Your task to perform on an android device: uninstall "LinkedIn" Image 0: 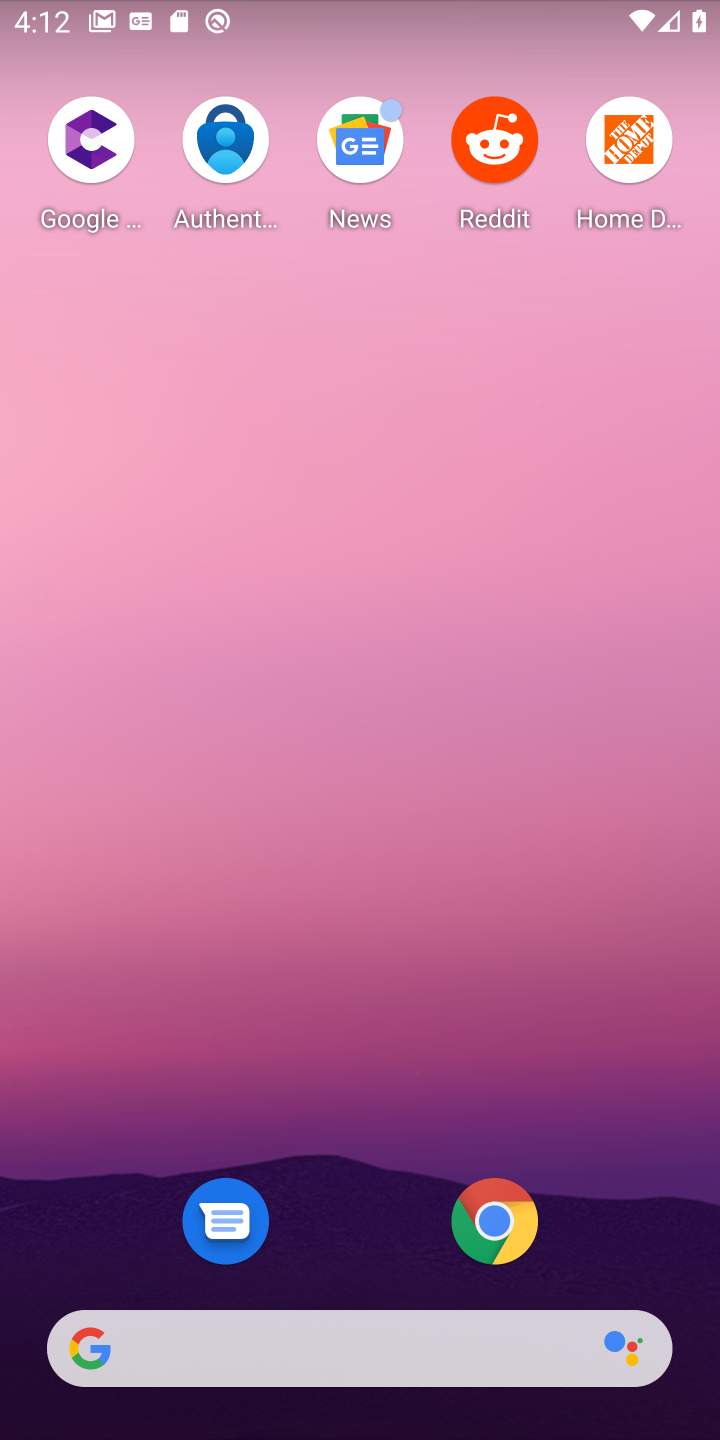
Step 0: press home button
Your task to perform on an android device: uninstall "LinkedIn" Image 1: 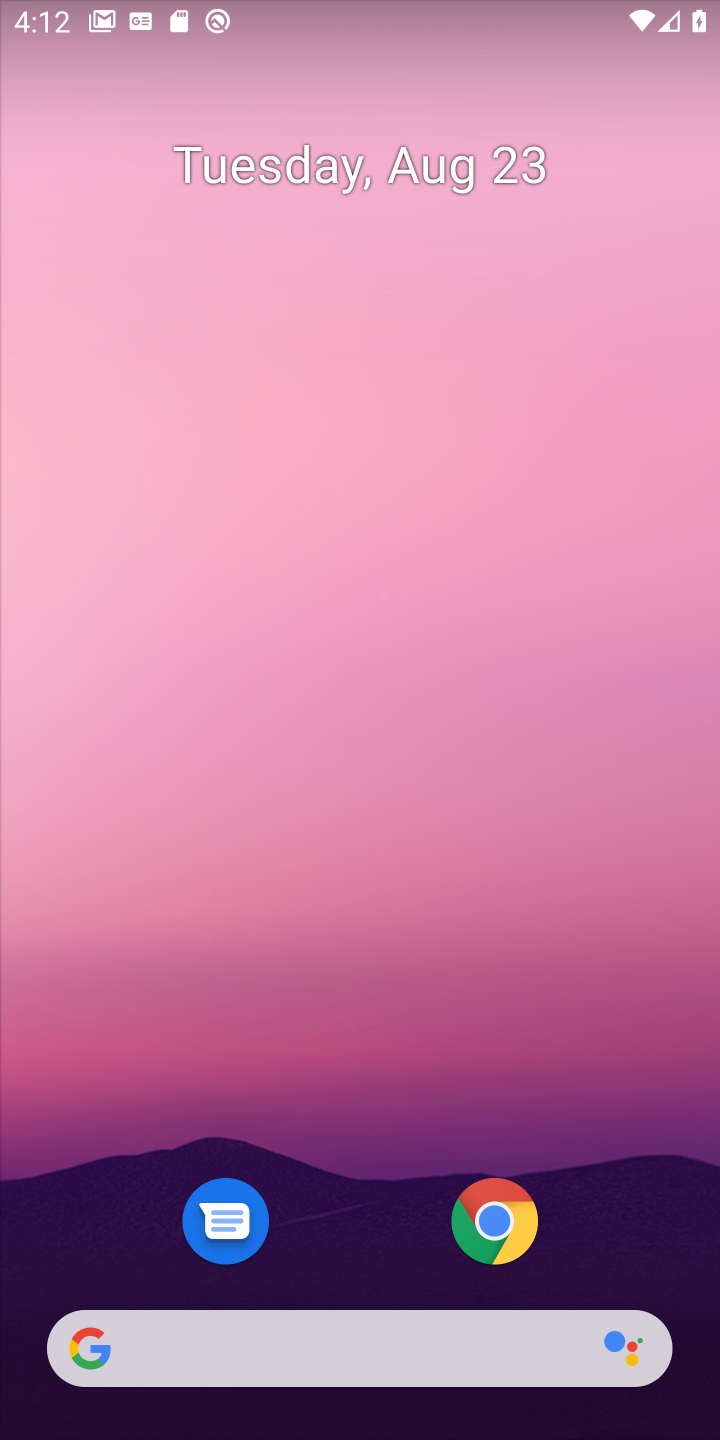
Step 1: click (509, 96)
Your task to perform on an android device: uninstall "LinkedIn" Image 2: 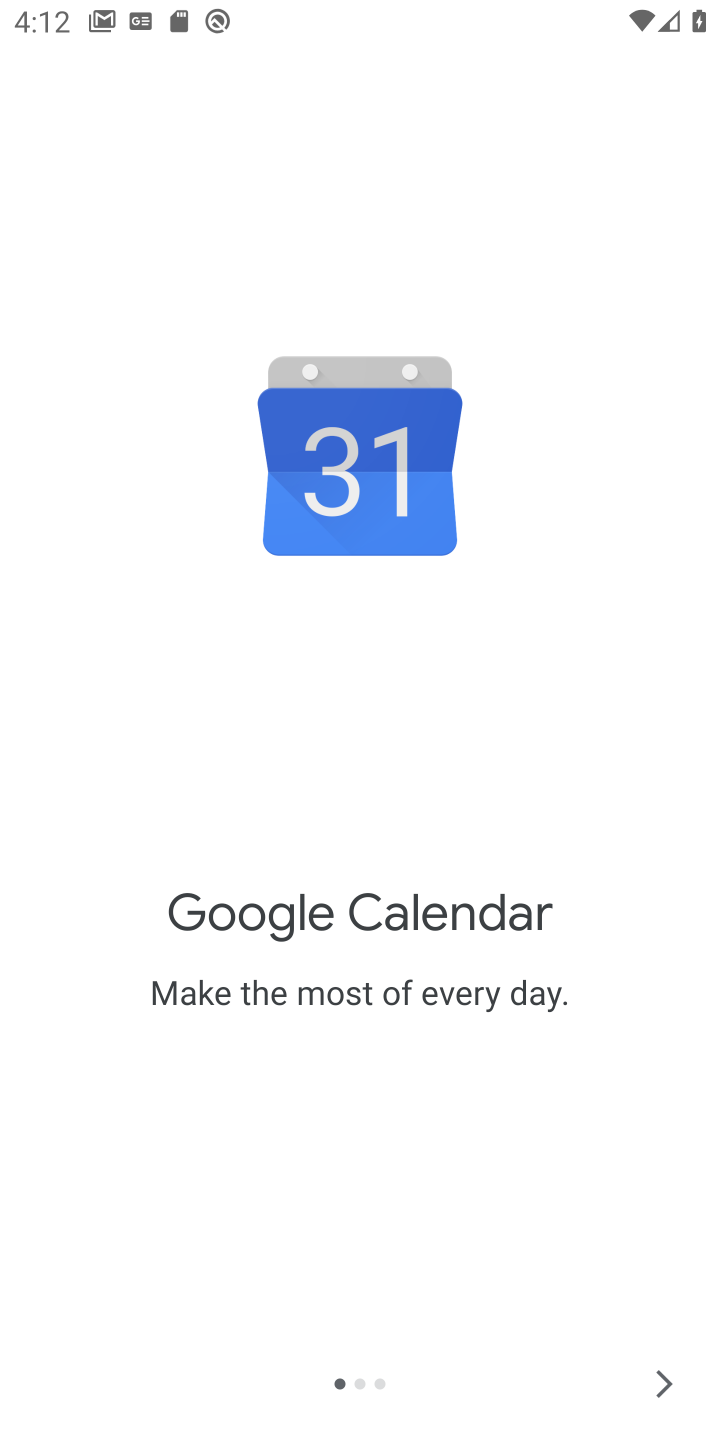
Step 2: press home button
Your task to perform on an android device: uninstall "LinkedIn" Image 3: 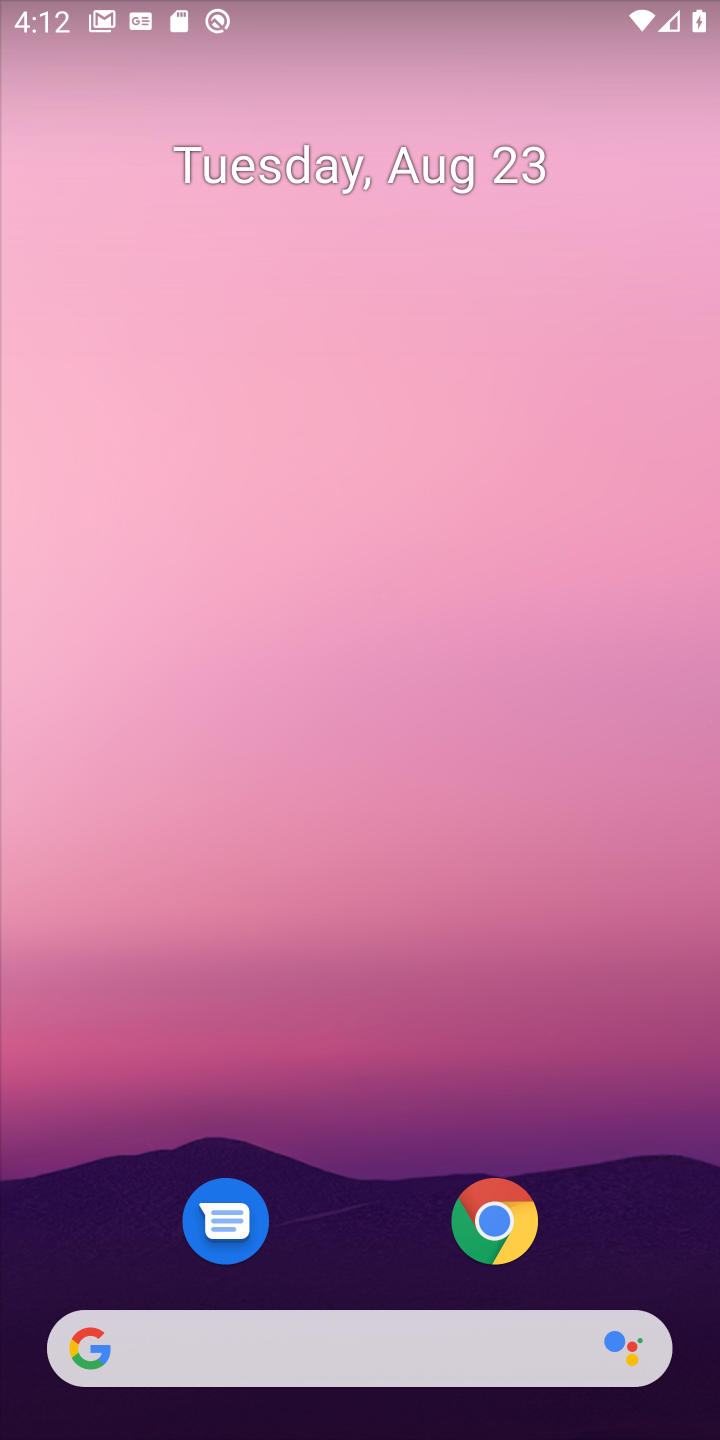
Step 3: drag from (318, 1151) to (348, 74)
Your task to perform on an android device: uninstall "LinkedIn" Image 4: 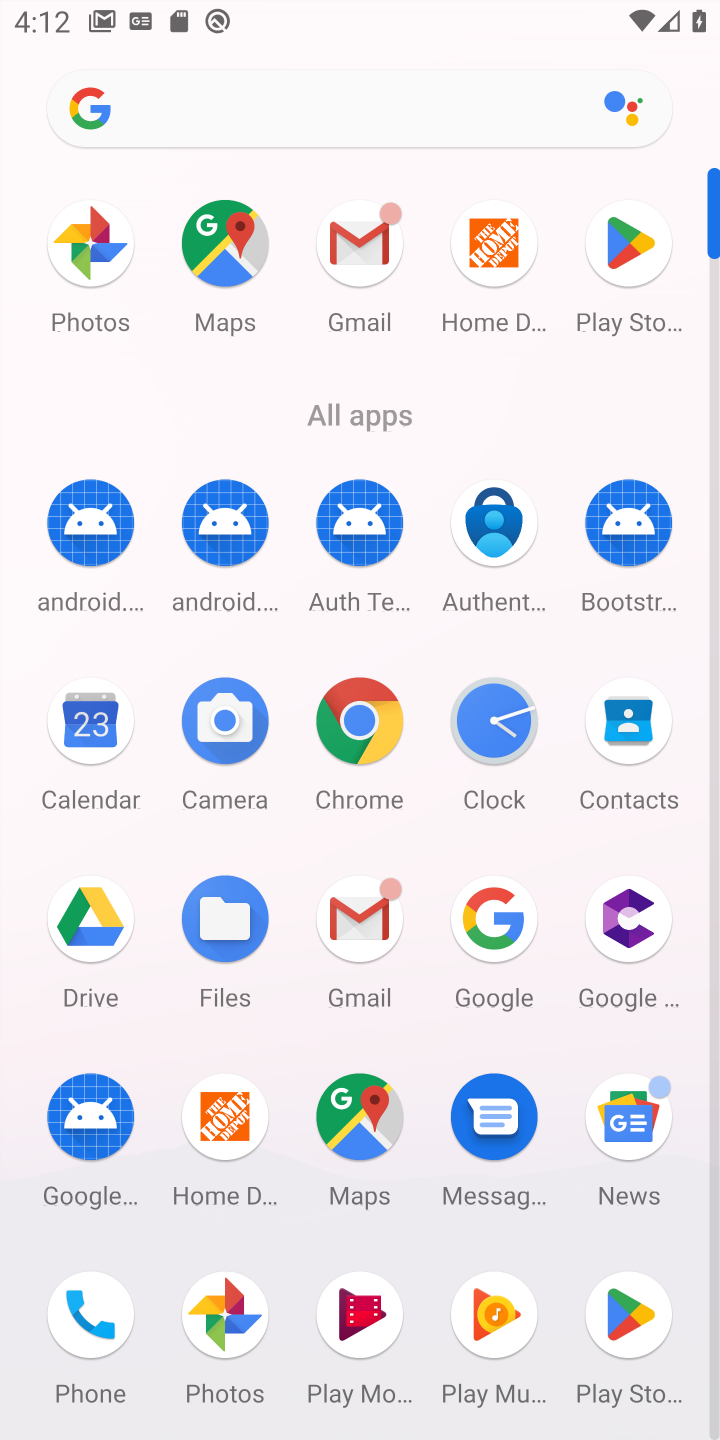
Step 4: click (629, 392)
Your task to perform on an android device: uninstall "LinkedIn" Image 5: 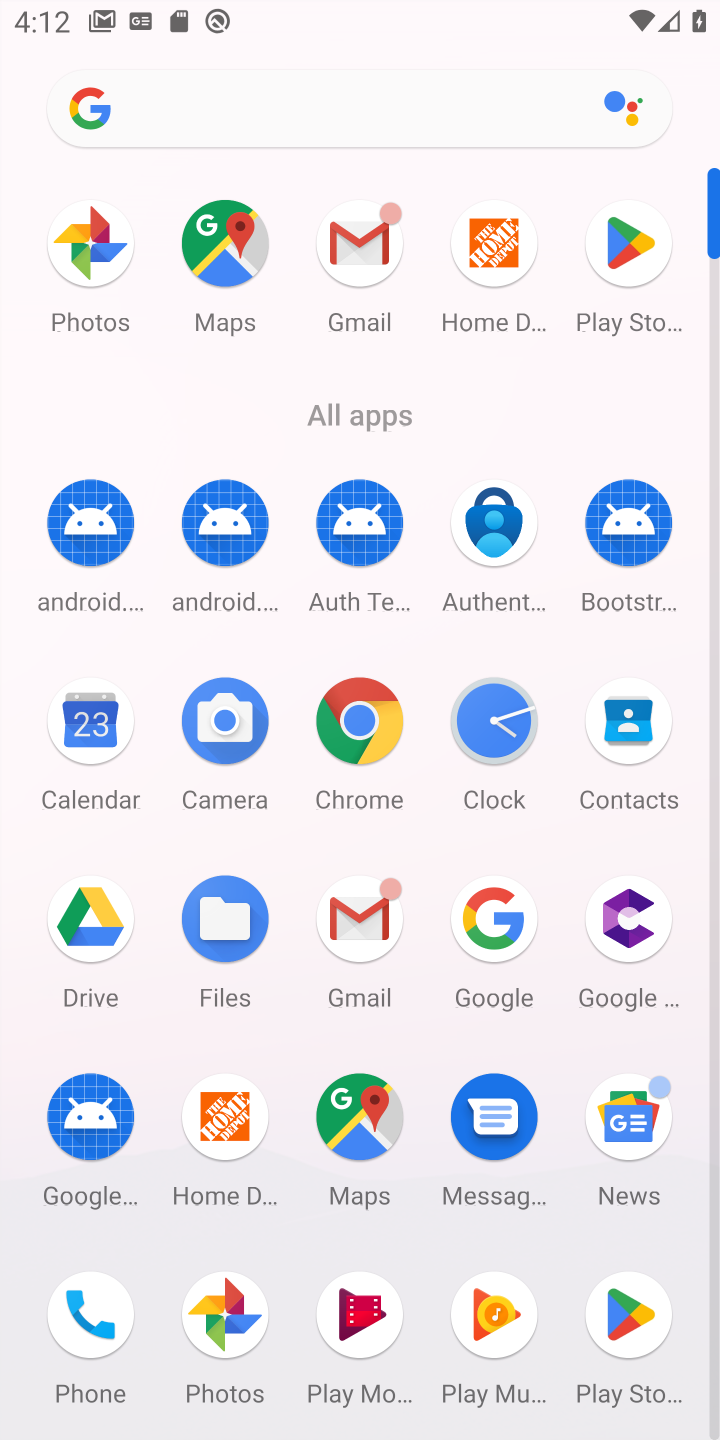
Step 5: click (629, 269)
Your task to perform on an android device: uninstall "LinkedIn" Image 6: 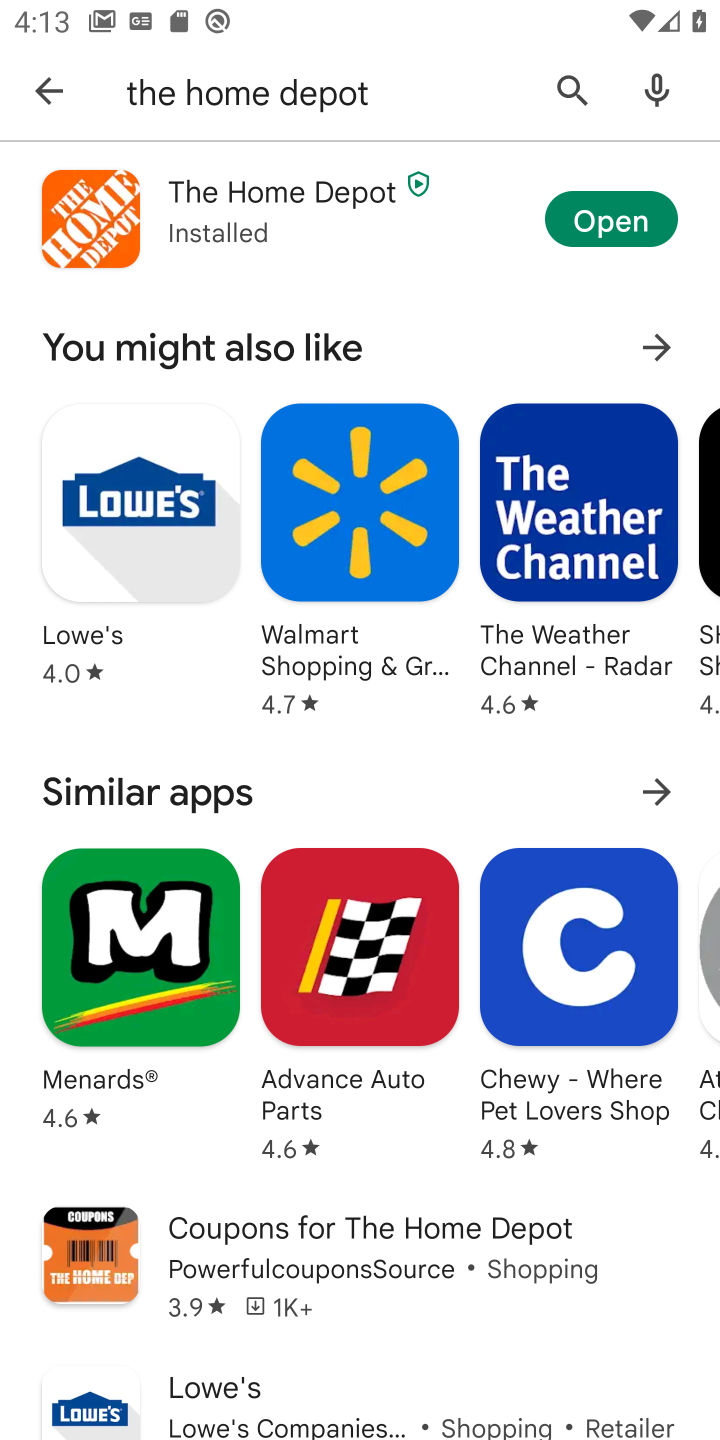
Step 6: click (621, 246)
Your task to perform on an android device: uninstall "LinkedIn" Image 7: 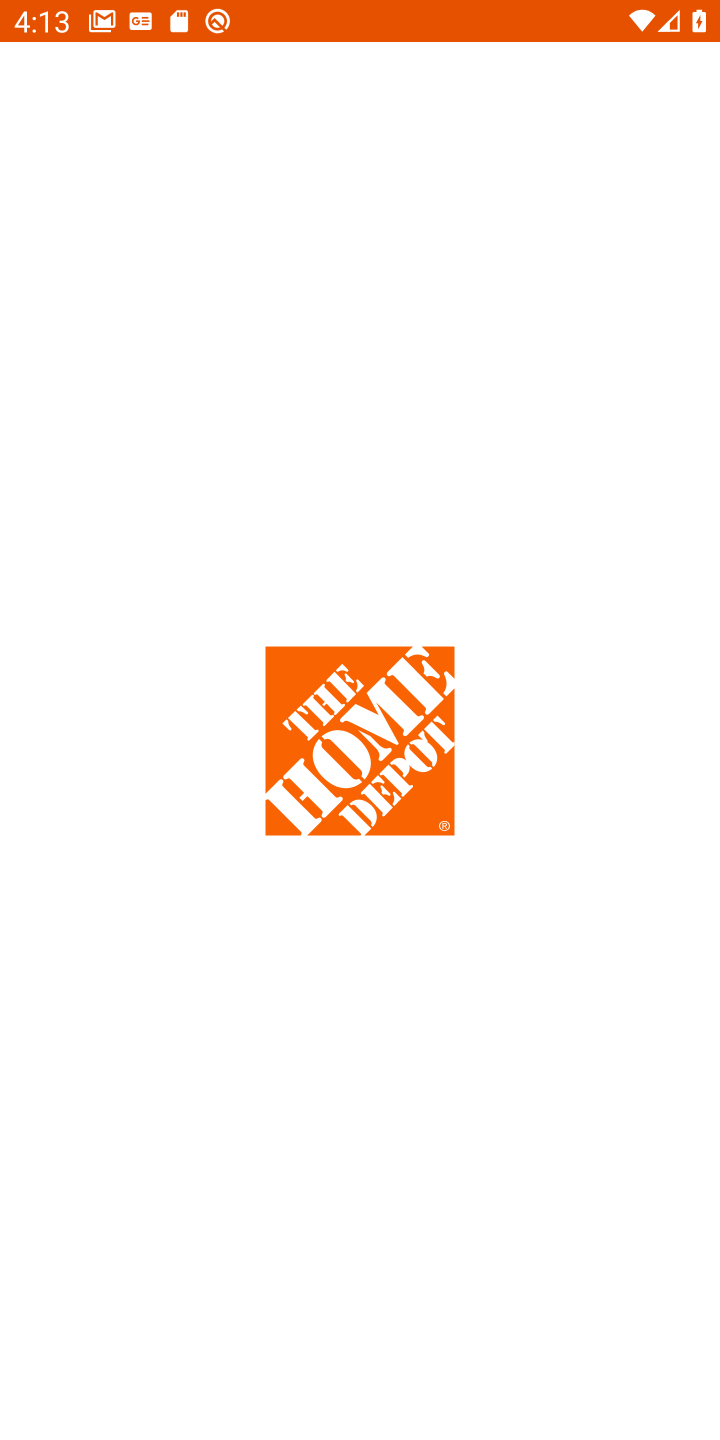
Step 7: click (43, 90)
Your task to perform on an android device: uninstall "LinkedIn" Image 8: 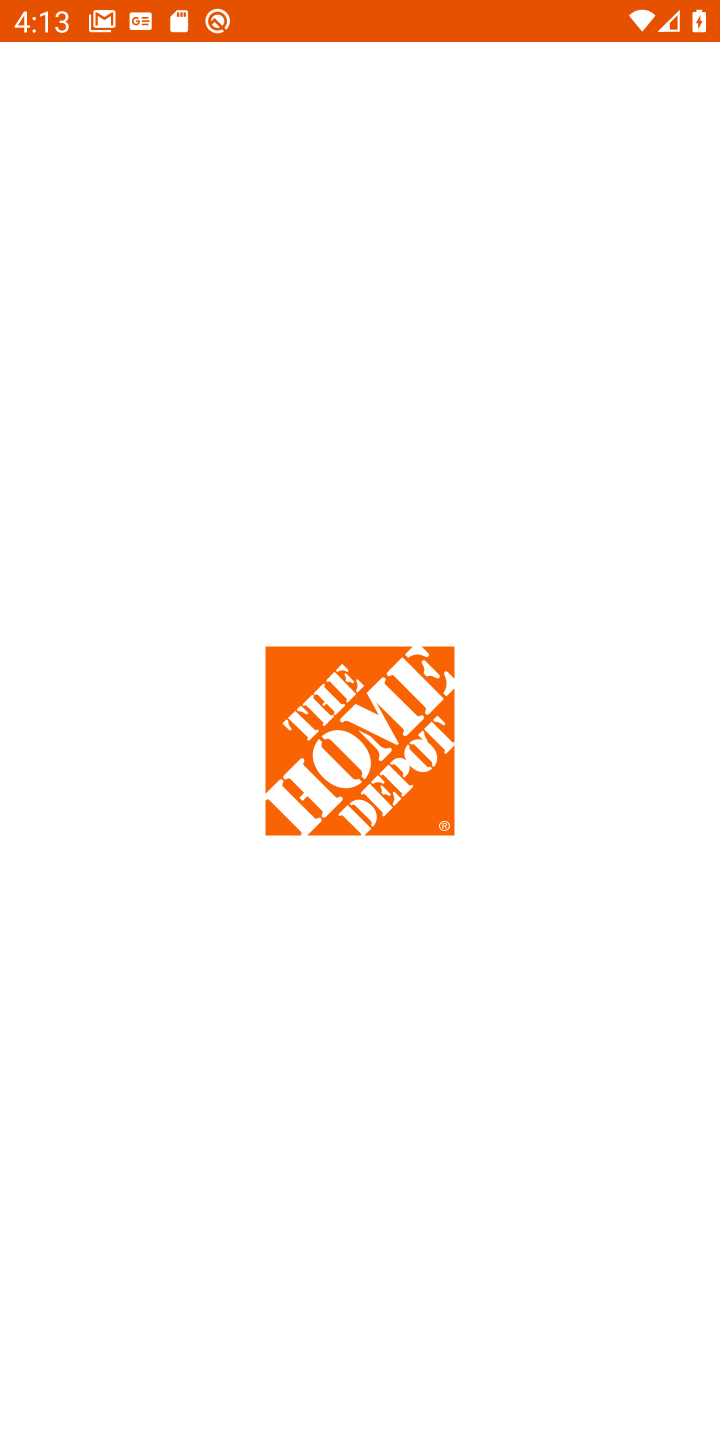
Step 8: press back button
Your task to perform on an android device: uninstall "LinkedIn" Image 9: 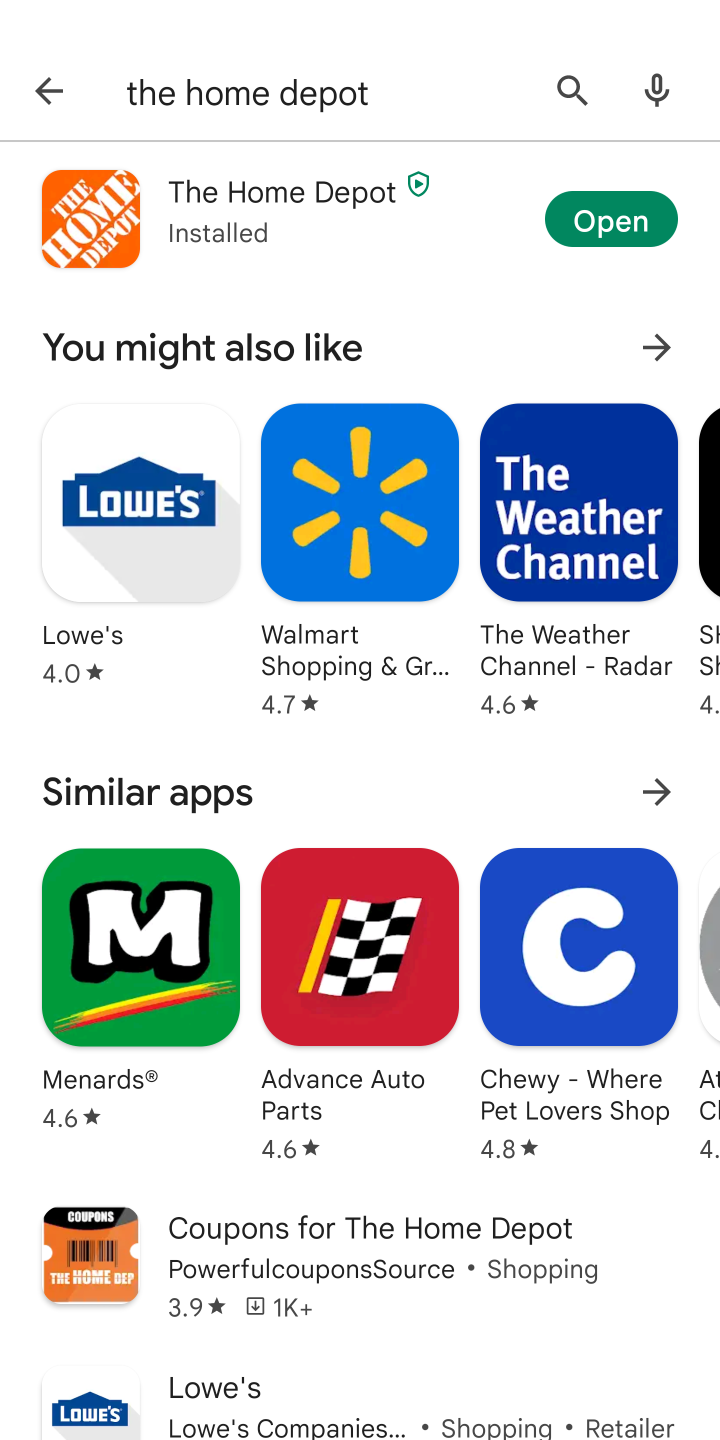
Step 9: press home button
Your task to perform on an android device: uninstall "LinkedIn" Image 10: 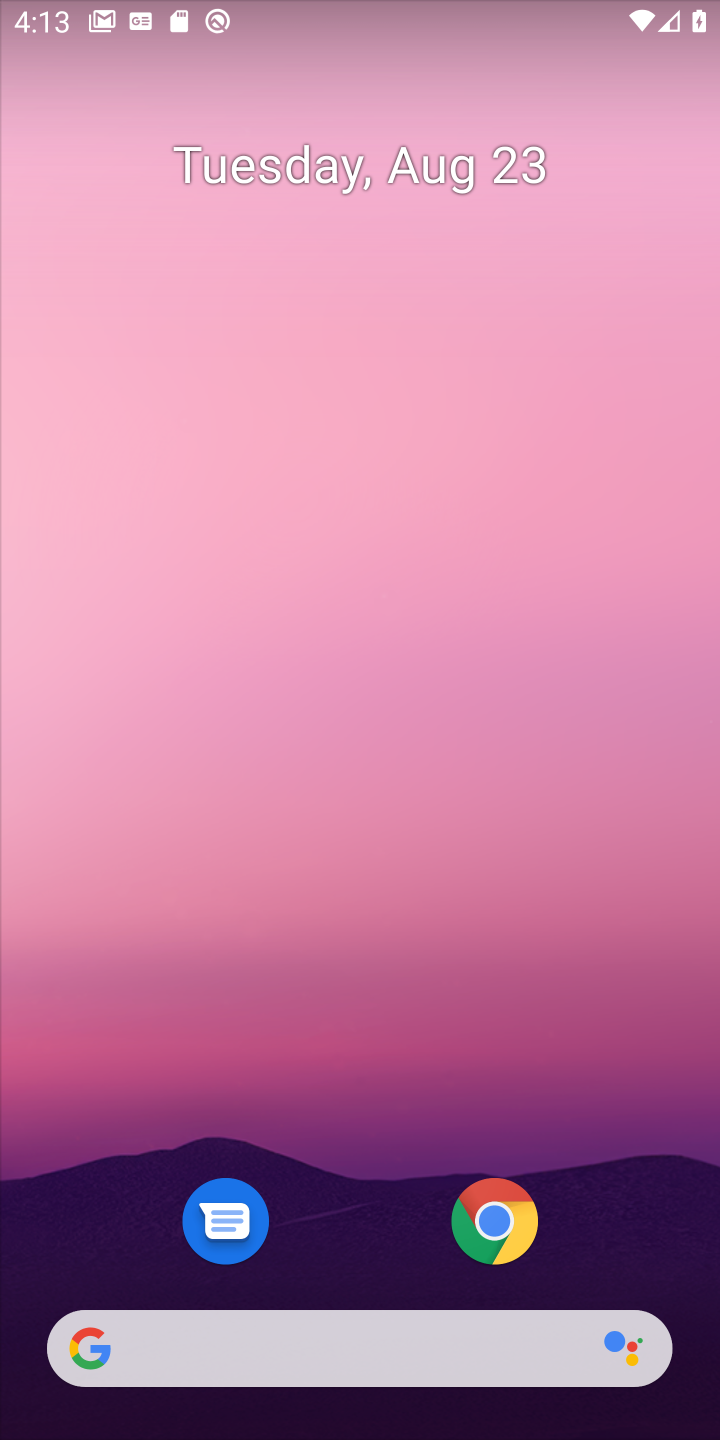
Step 10: click (61, 86)
Your task to perform on an android device: uninstall "LinkedIn" Image 11: 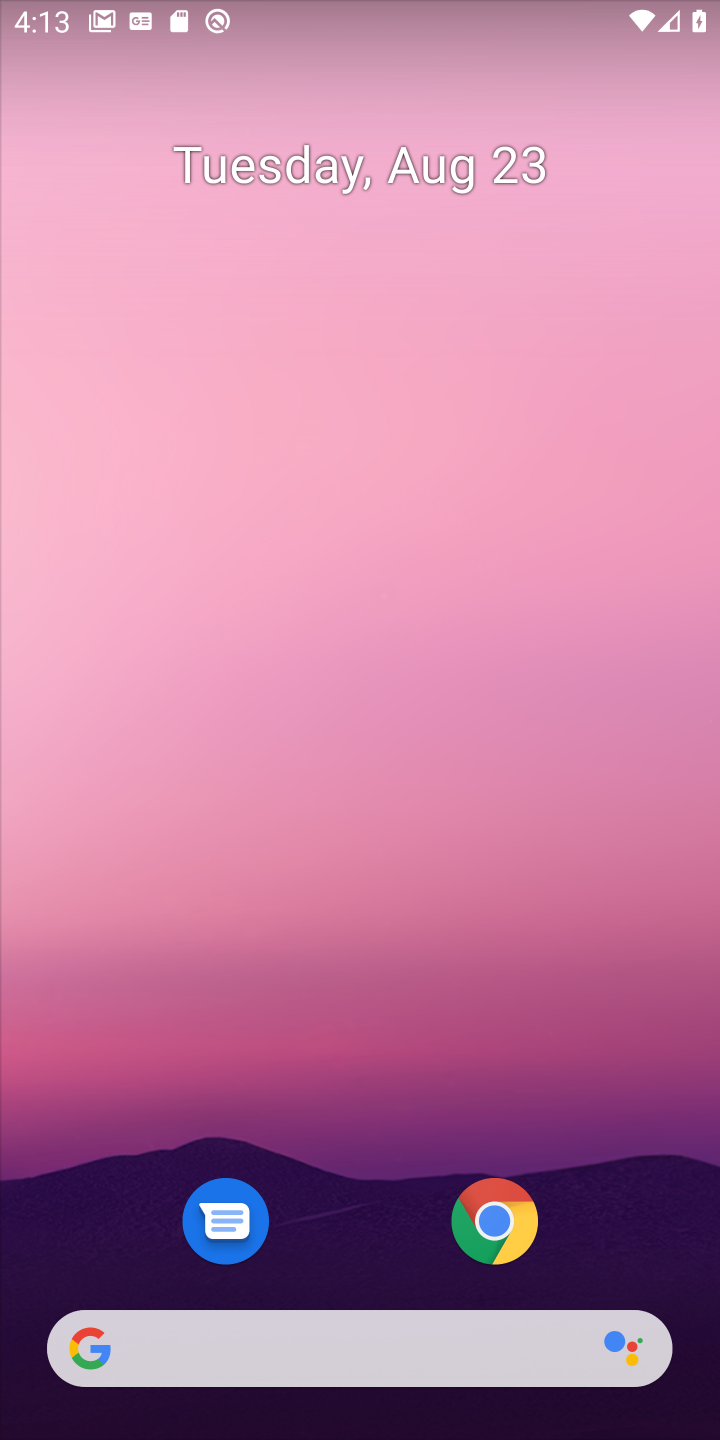
Step 11: click (470, 140)
Your task to perform on an android device: uninstall "LinkedIn" Image 12: 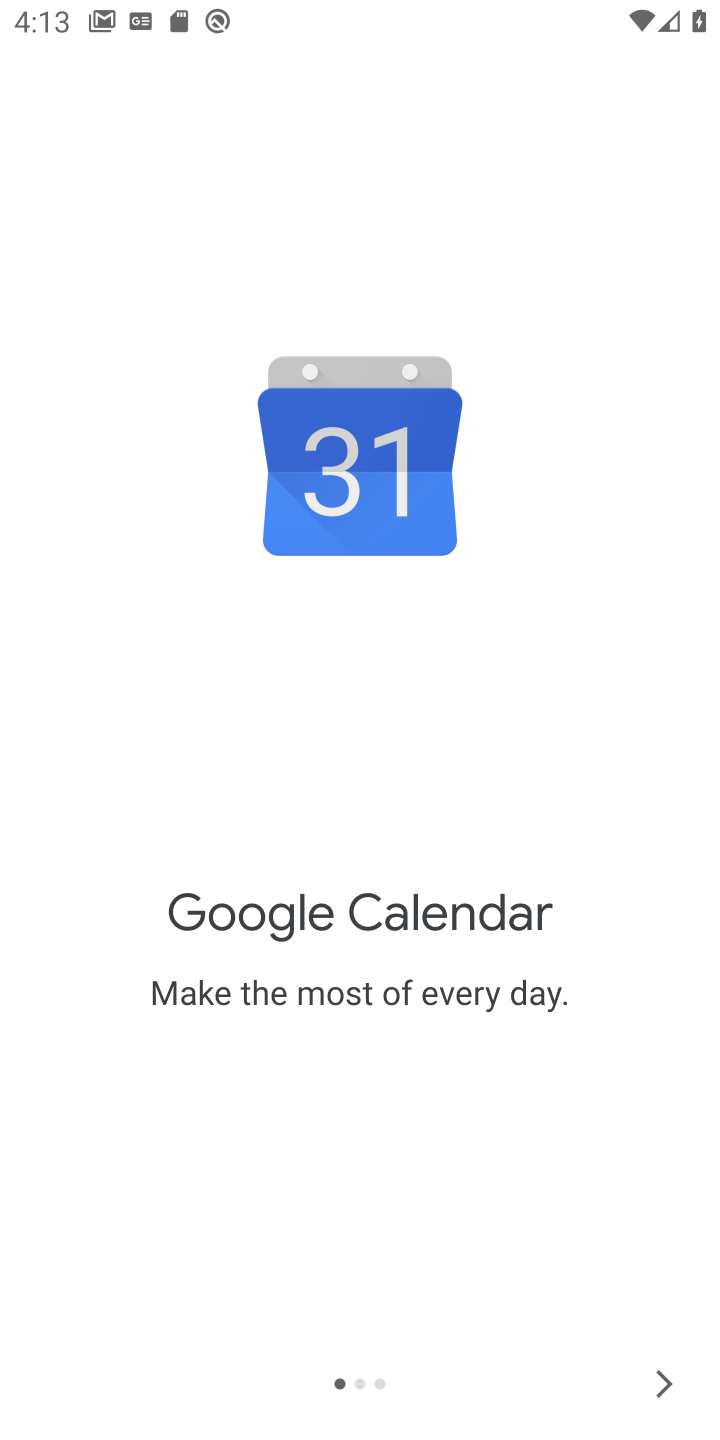
Step 12: click (416, 57)
Your task to perform on an android device: uninstall "LinkedIn" Image 13: 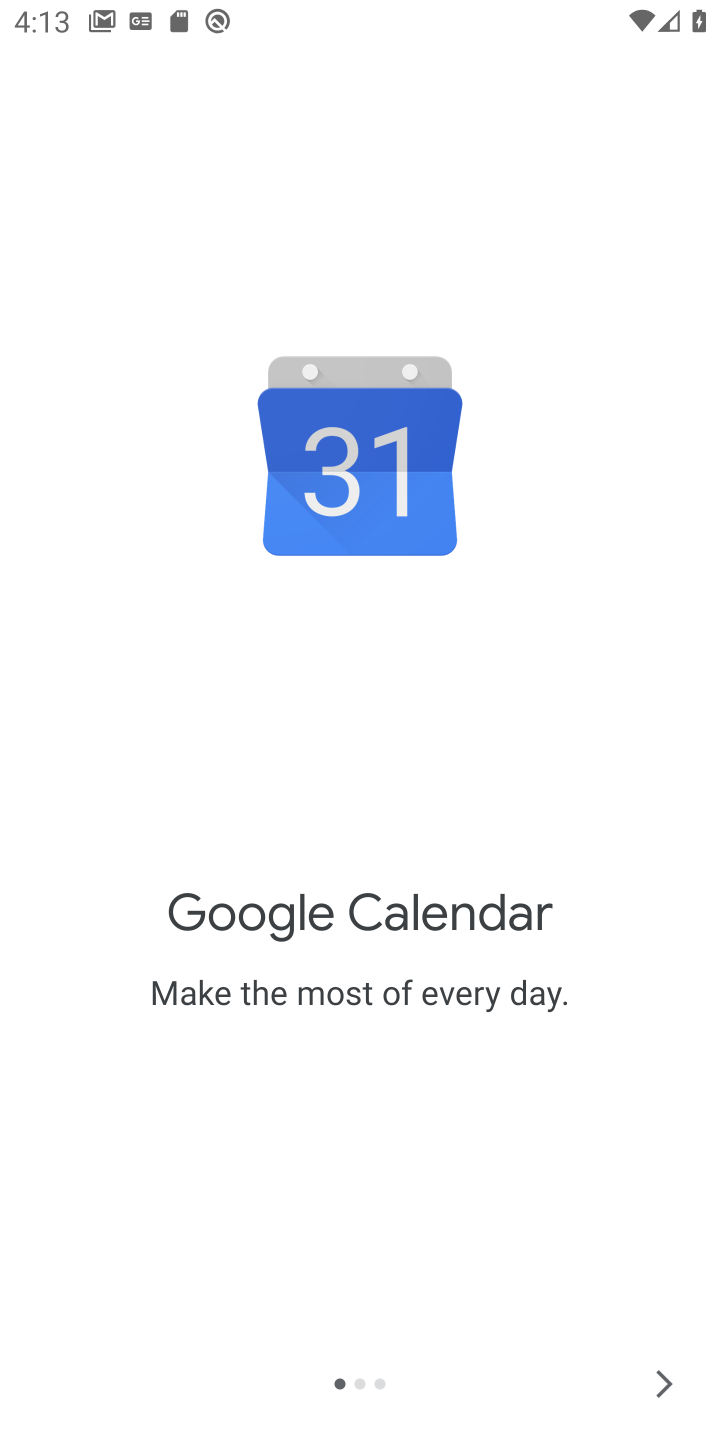
Step 13: press back button
Your task to perform on an android device: uninstall "LinkedIn" Image 14: 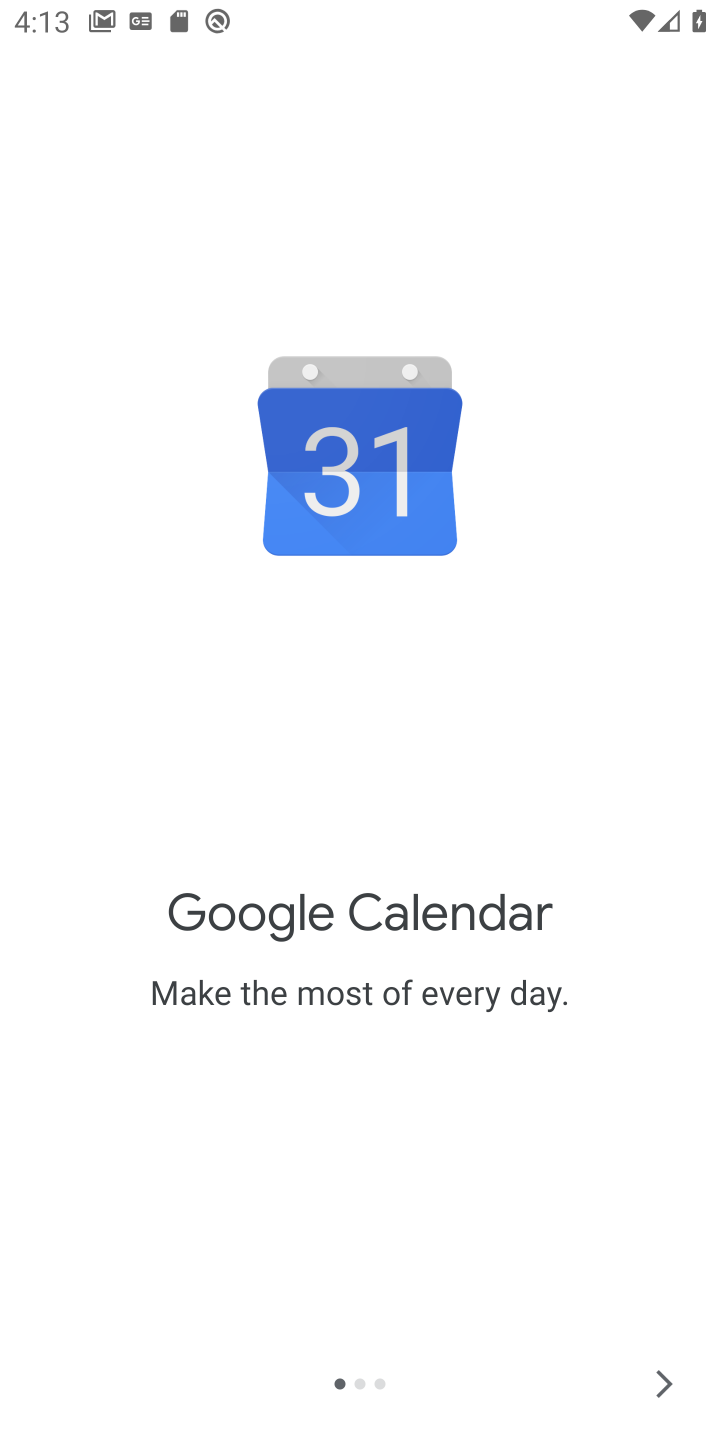
Step 14: press home button
Your task to perform on an android device: uninstall "LinkedIn" Image 15: 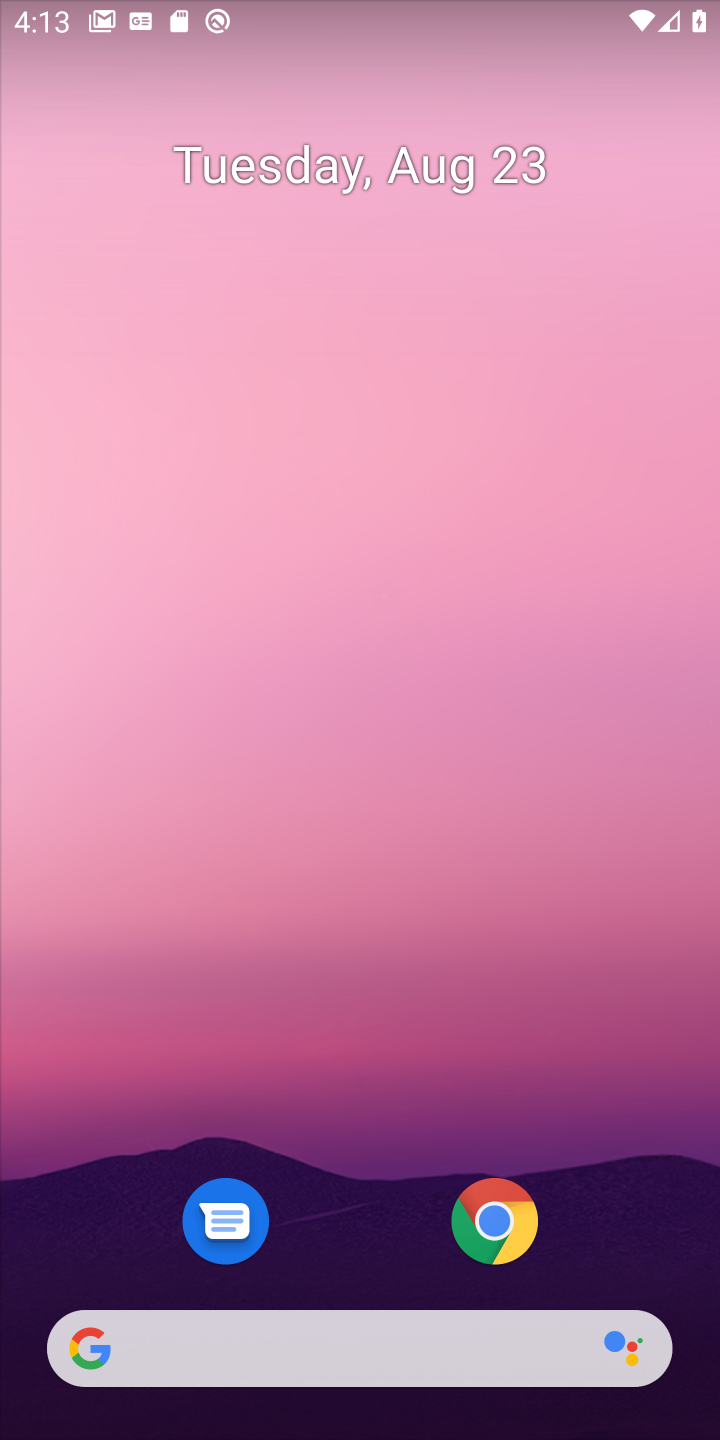
Step 15: drag from (350, 1159) to (416, 118)
Your task to perform on an android device: uninstall "LinkedIn" Image 16: 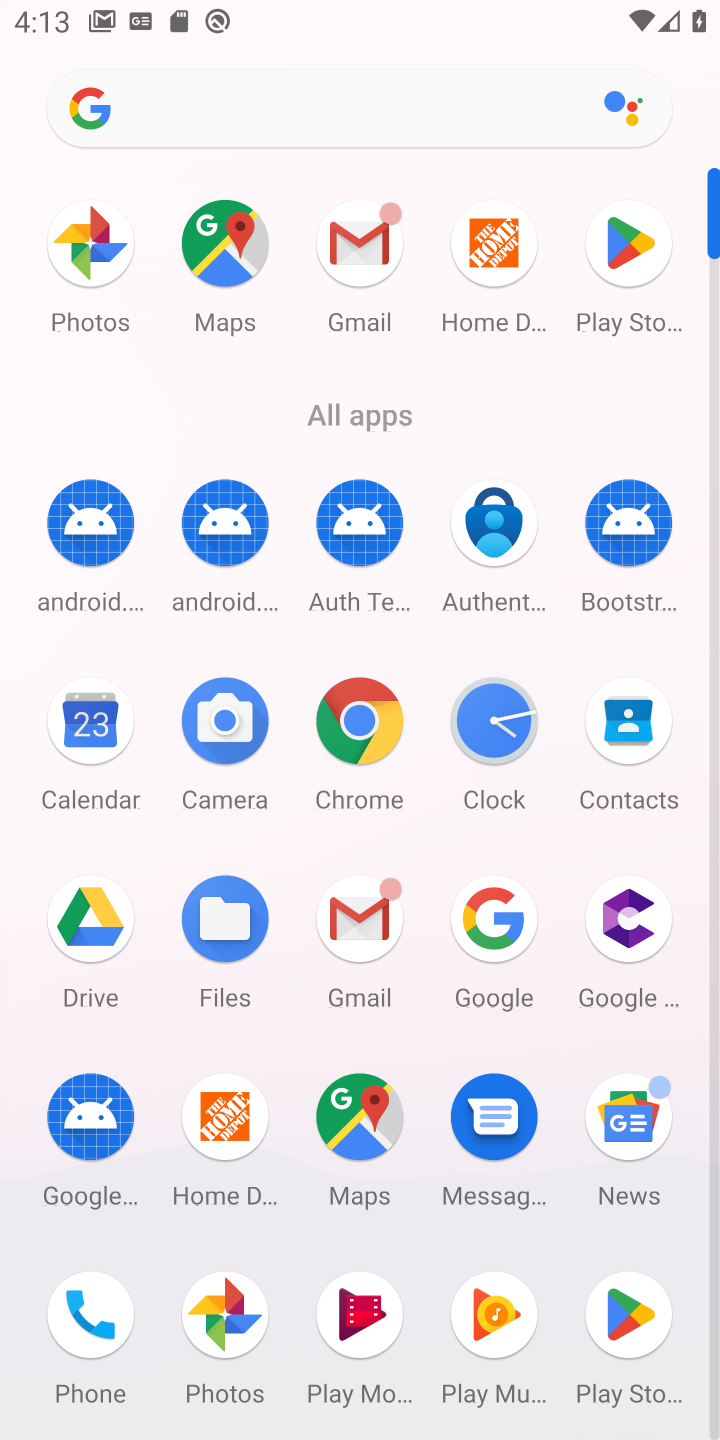
Step 16: click (628, 230)
Your task to perform on an android device: uninstall "LinkedIn" Image 17: 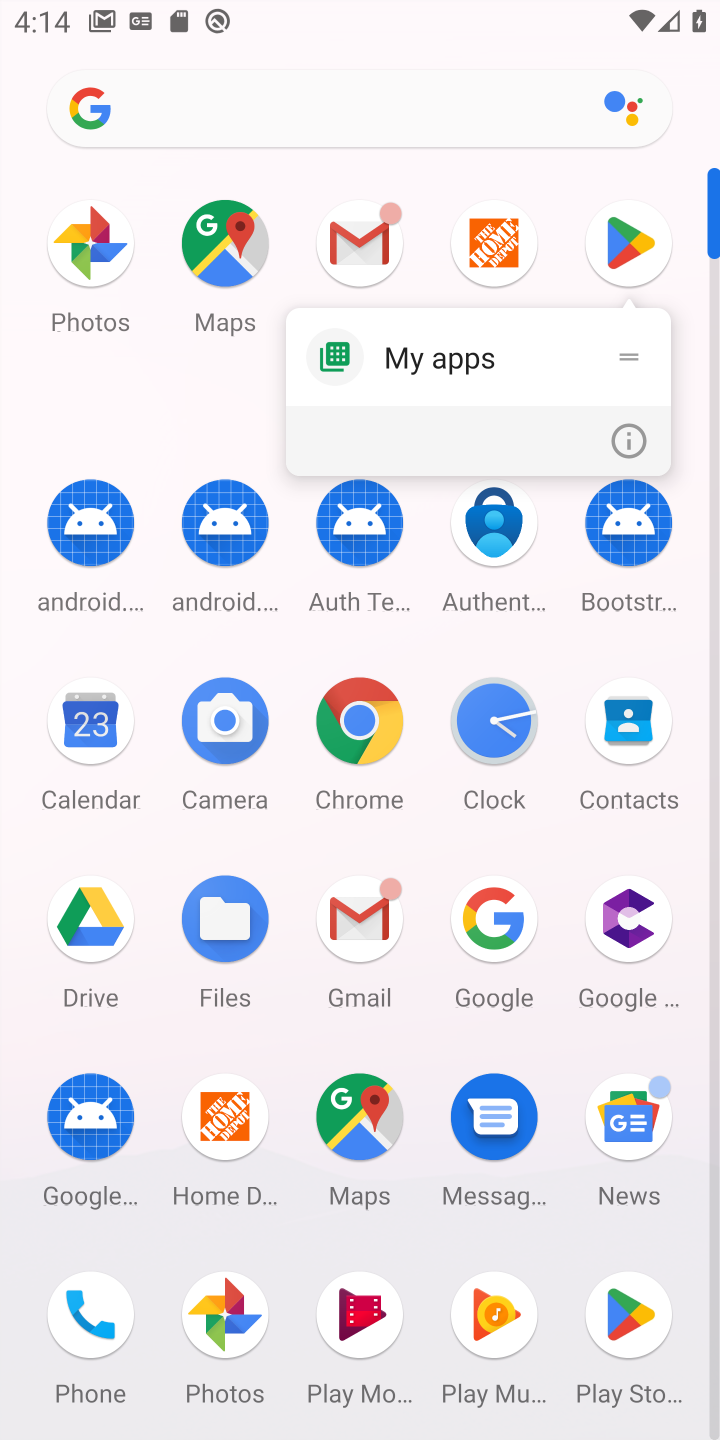
Step 17: click (624, 252)
Your task to perform on an android device: uninstall "LinkedIn" Image 18: 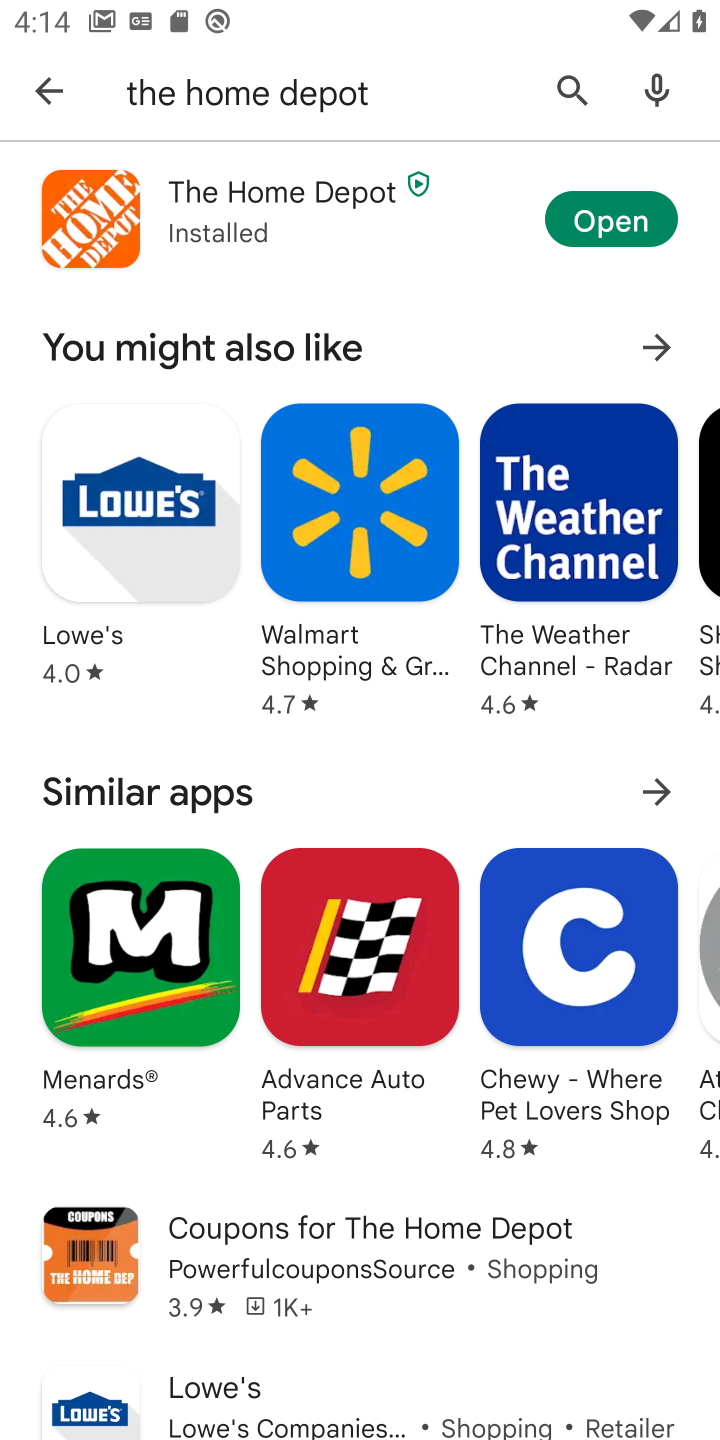
Step 18: click (51, 94)
Your task to perform on an android device: uninstall "LinkedIn" Image 19: 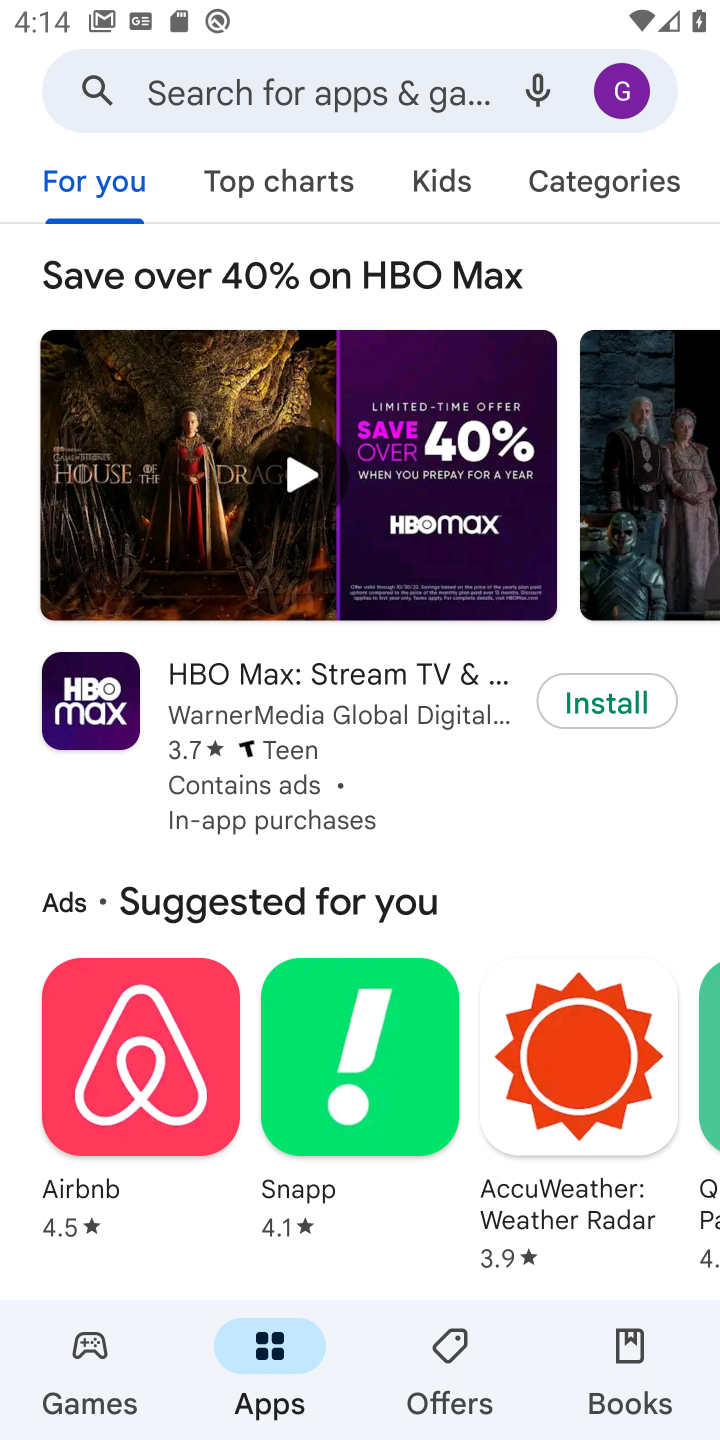
Step 19: click (253, 94)
Your task to perform on an android device: uninstall "LinkedIn" Image 20: 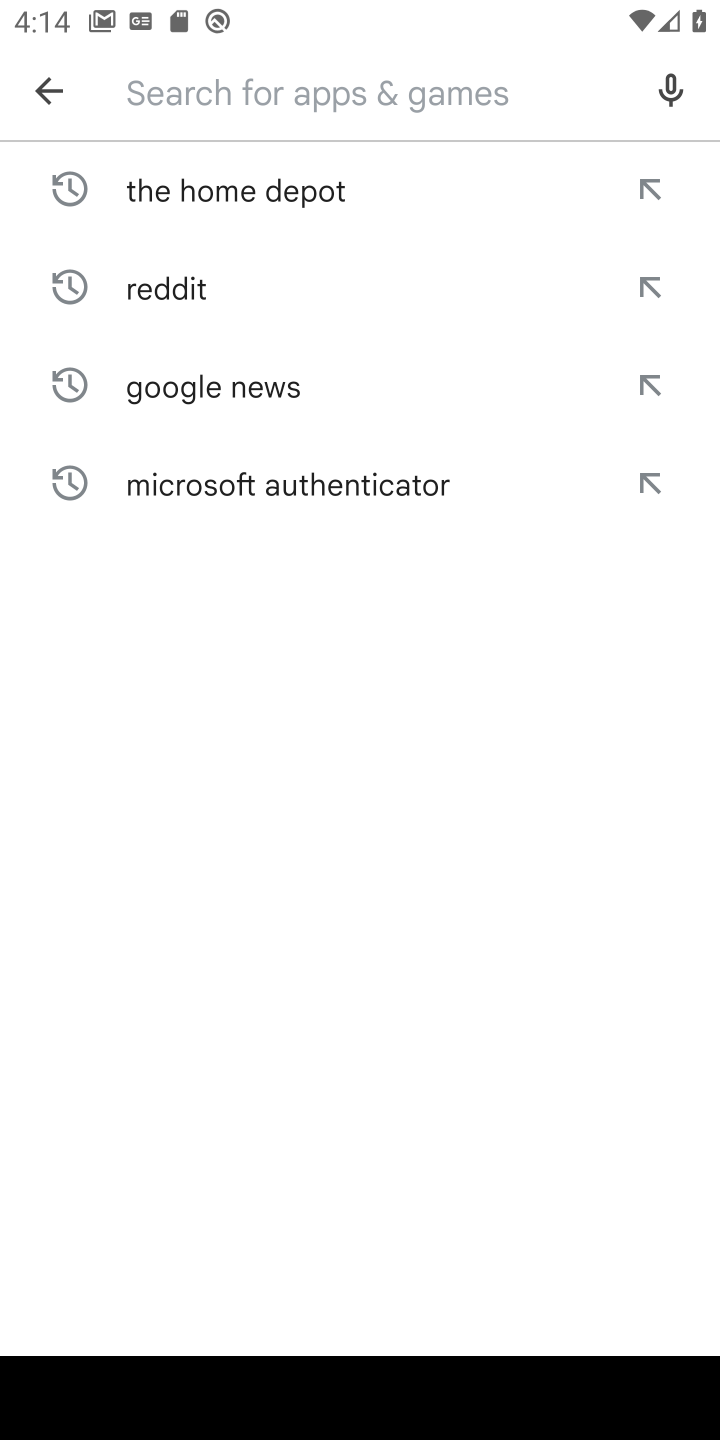
Step 20: type "LinkedIn"
Your task to perform on an android device: uninstall "LinkedIn" Image 21: 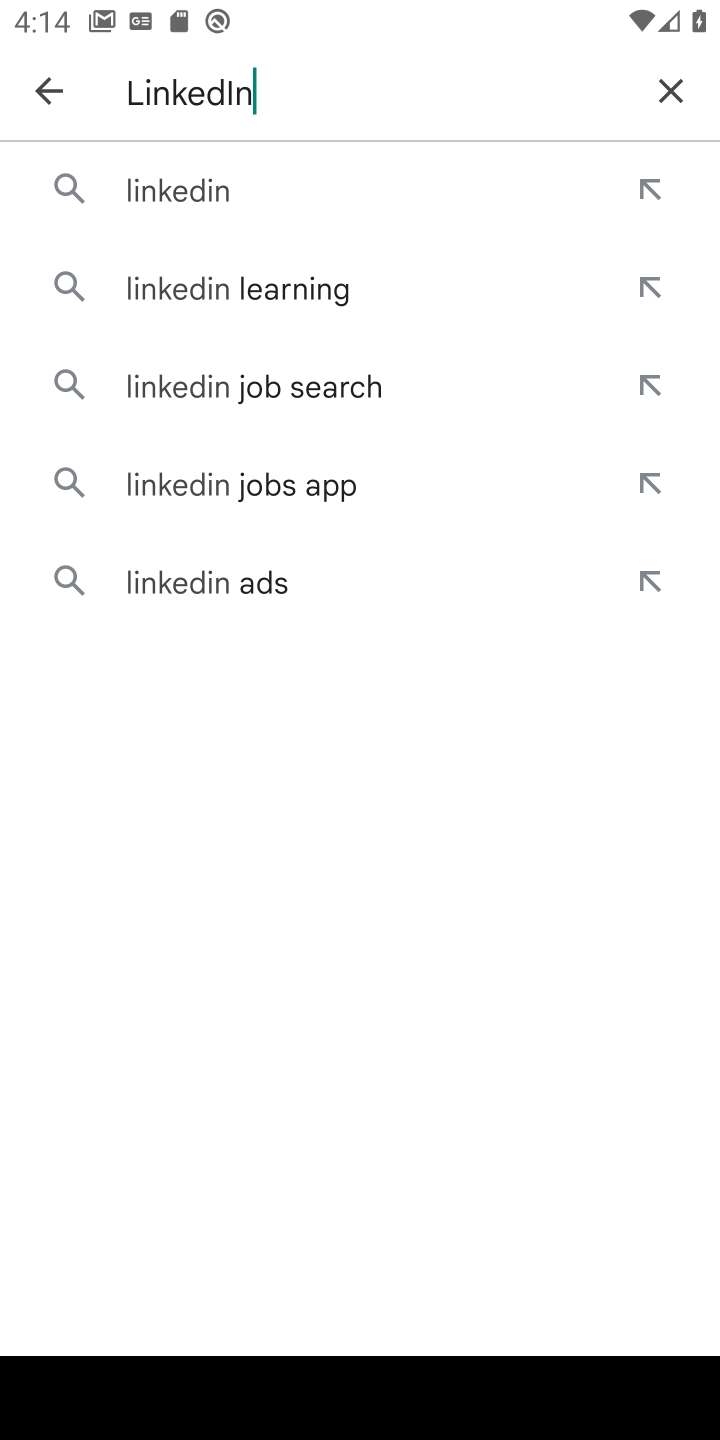
Step 21: click (159, 190)
Your task to perform on an android device: uninstall "LinkedIn" Image 22: 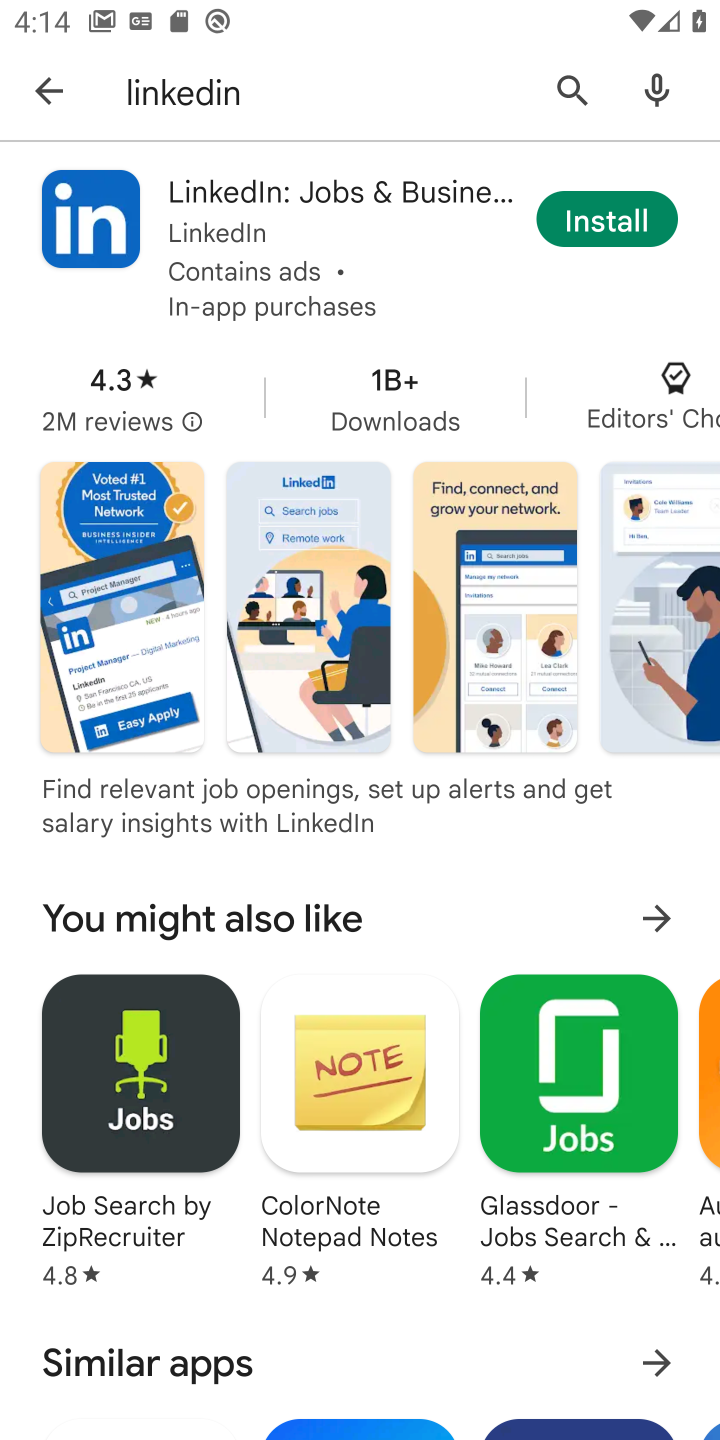
Step 22: task complete